Your task to perform on an android device: Is it going to rain tomorrow? Image 0: 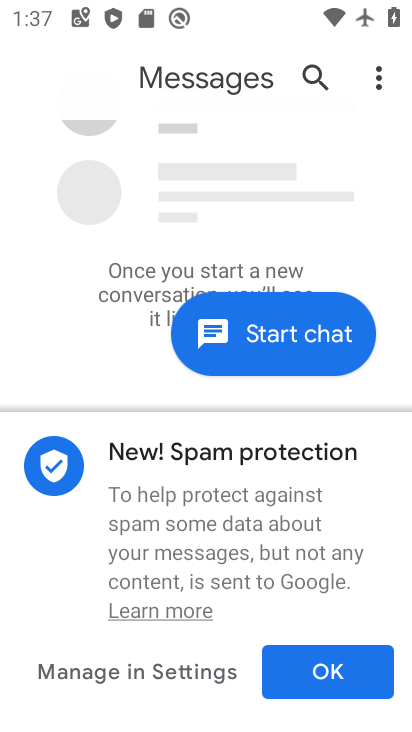
Step 0: press home button
Your task to perform on an android device: Is it going to rain tomorrow? Image 1: 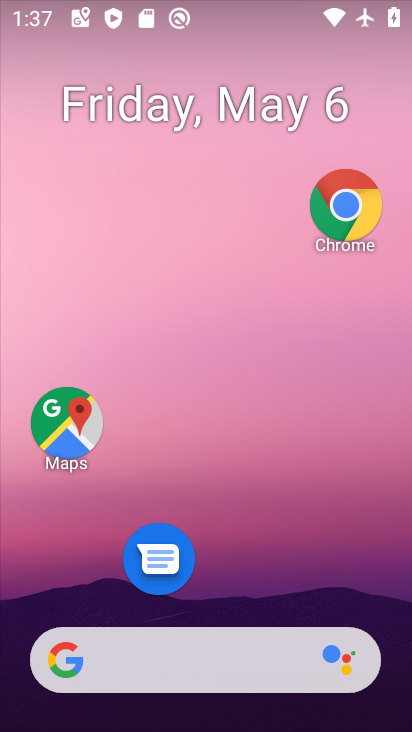
Step 1: click (66, 656)
Your task to perform on an android device: Is it going to rain tomorrow? Image 2: 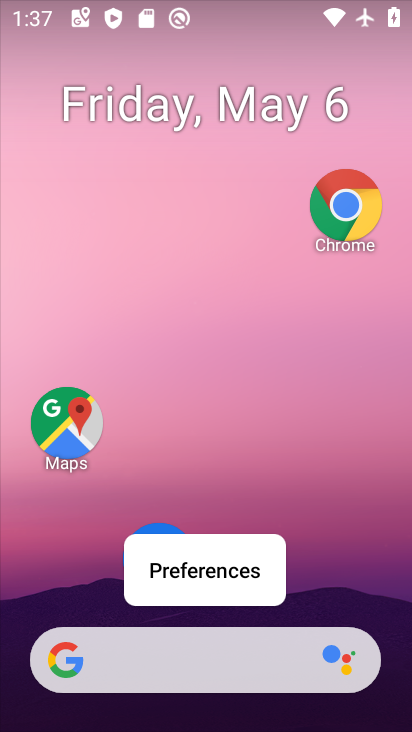
Step 2: click (55, 672)
Your task to perform on an android device: Is it going to rain tomorrow? Image 3: 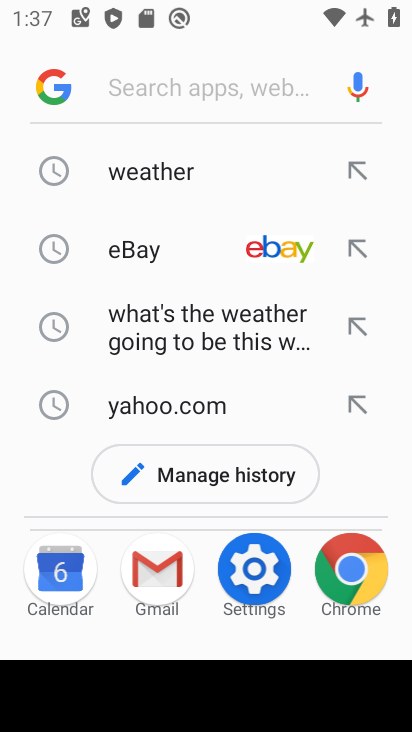
Step 3: click (179, 172)
Your task to perform on an android device: Is it going to rain tomorrow? Image 4: 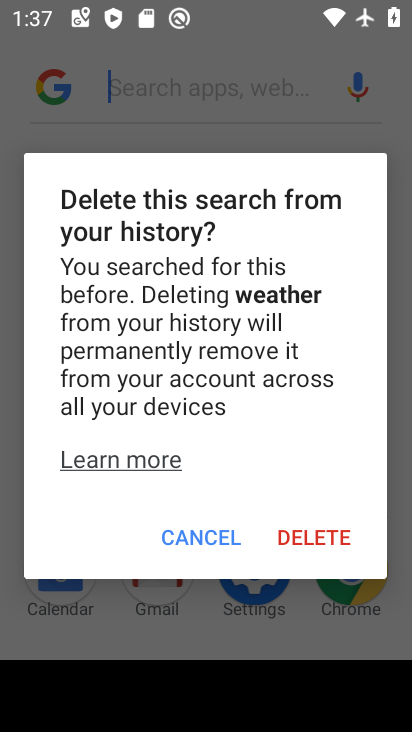
Step 4: click (183, 543)
Your task to perform on an android device: Is it going to rain tomorrow? Image 5: 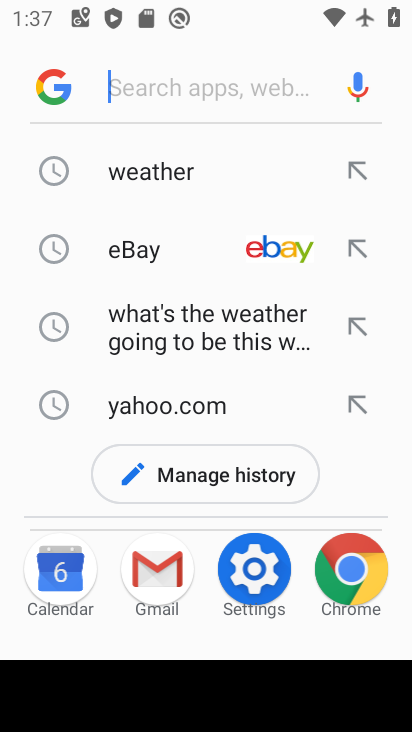
Step 5: click (172, 171)
Your task to perform on an android device: Is it going to rain tomorrow? Image 6: 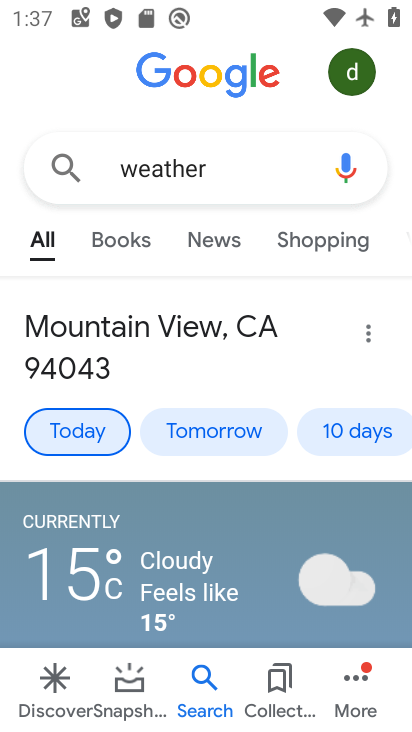
Step 6: click (214, 435)
Your task to perform on an android device: Is it going to rain tomorrow? Image 7: 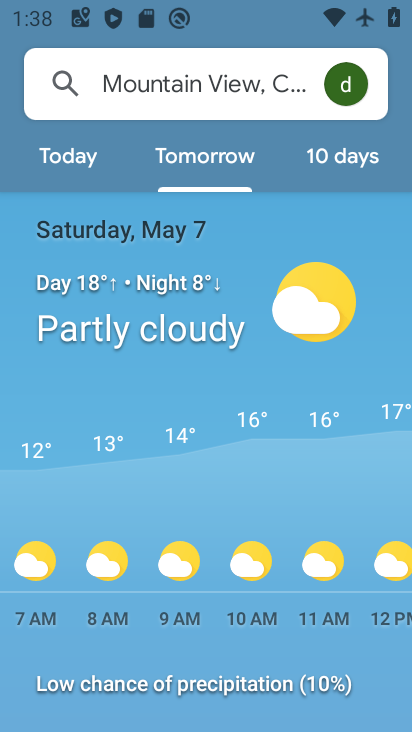
Step 7: task complete